Your task to perform on an android device: turn on data saver in the chrome app Image 0: 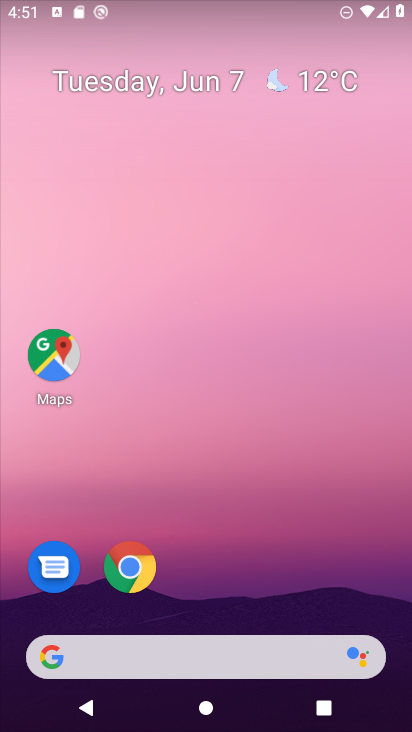
Step 0: drag from (249, 606) to (188, 137)
Your task to perform on an android device: turn on data saver in the chrome app Image 1: 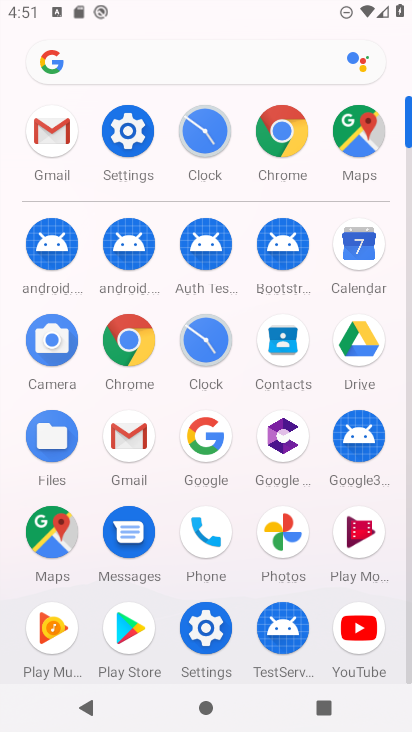
Step 1: click (125, 337)
Your task to perform on an android device: turn on data saver in the chrome app Image 2: 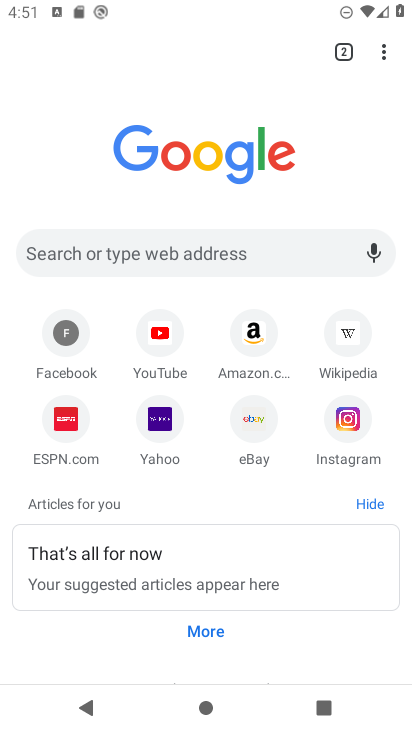
Step 2: click (381, 54)
Your task to perform on an android device: turn on data saver in the chrome app Image 3: 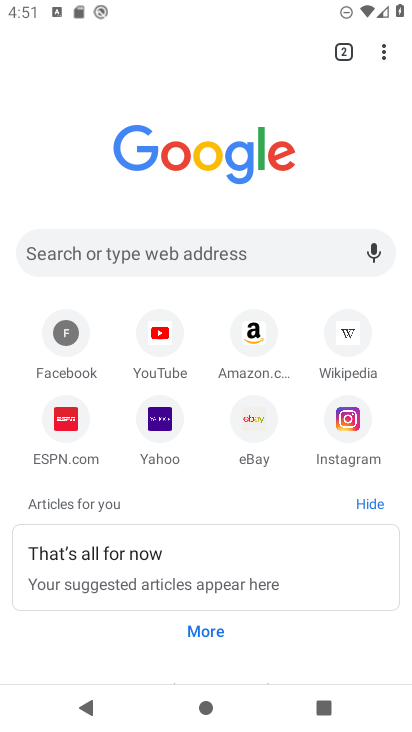
Step 3: drag from (394, 51) to (257, 440)
Your task to perform on an android device: turn on data saver in the chrome app Image 4: 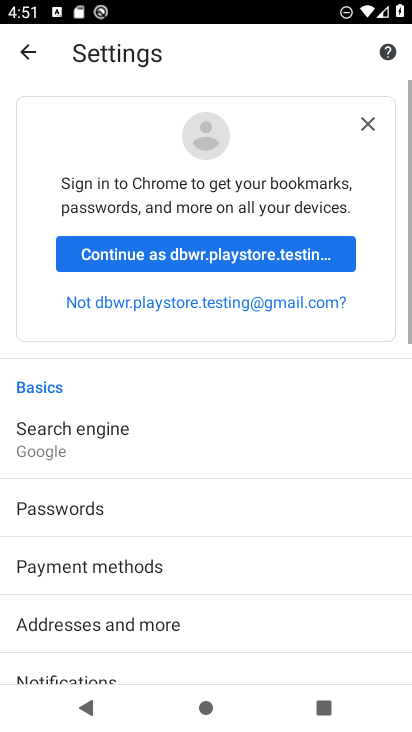
Step 4: drag from (212, 637) to (193, 200)
Your task to perform on an android device: turn on data saver in the chrome app Image 5: 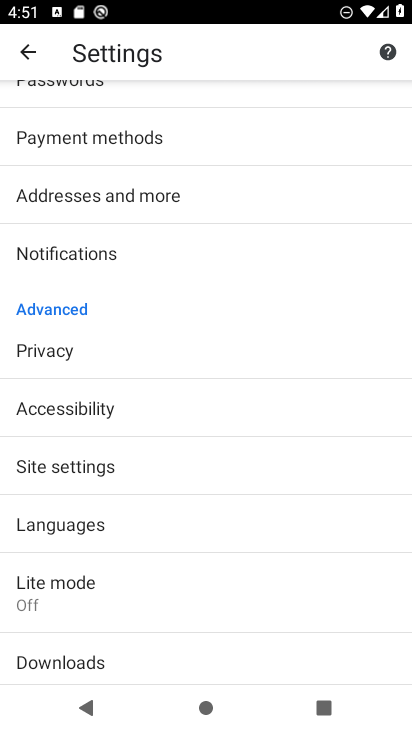
Step 5: click (96, 582)
Your task to perform on an android device: turn on data saver in the chrome app Image 6: 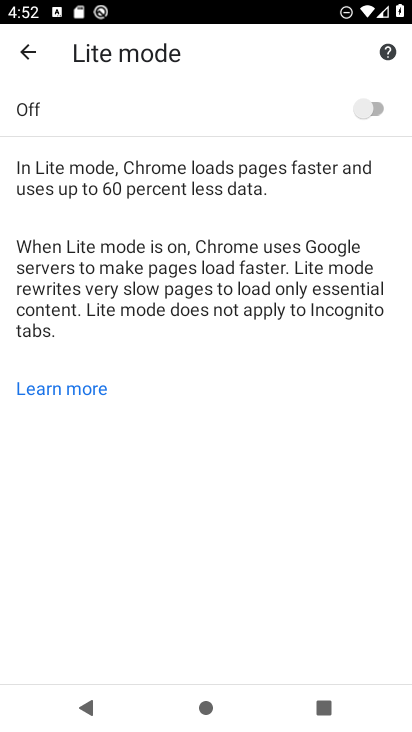
Step 6: click (388, 112)
Your task to perform on an android device: turn on data saver in the chrome app Image 7: 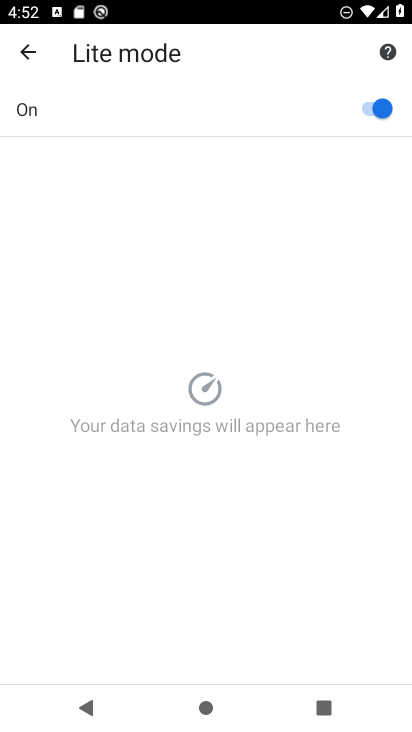
Step 7: task complete